Your task to perform on an android device: open app "Gmail" Image 0: 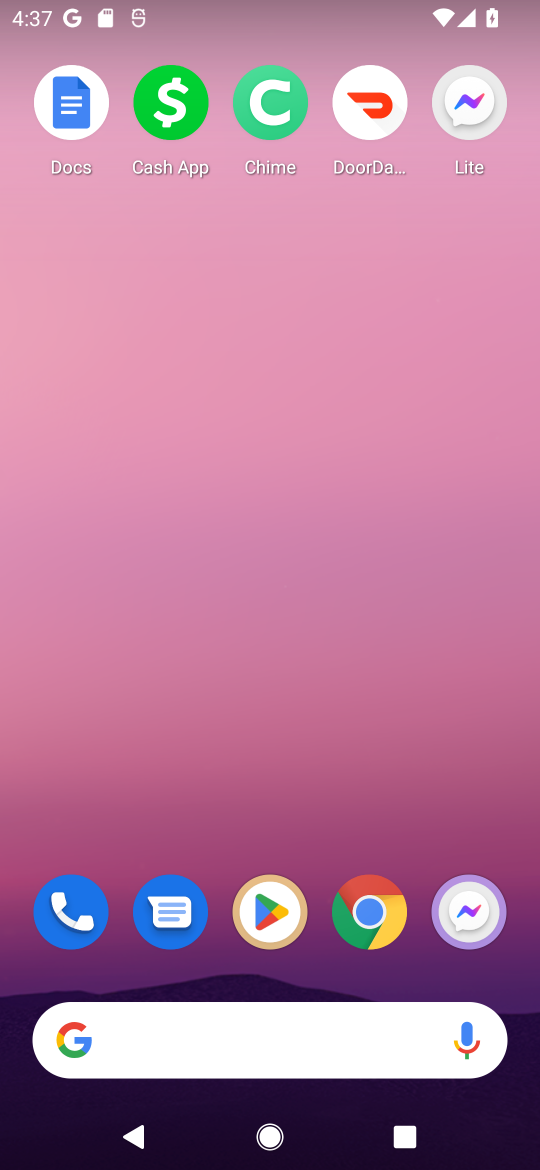
Step 0: click (259, 902)
Your task to perform on an android device: open app "Gmail" Image 1: 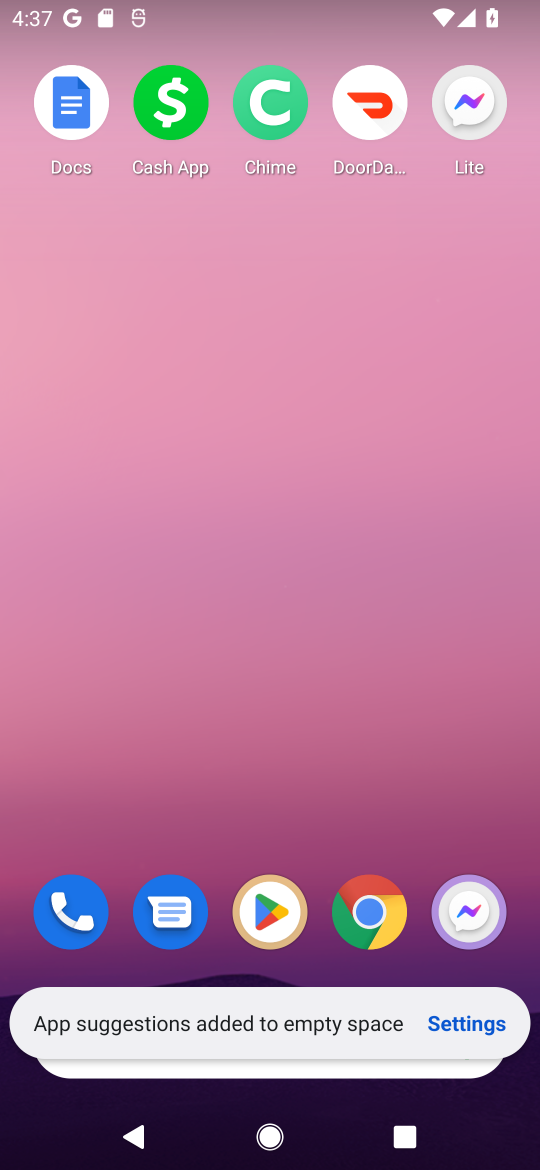
Step 1: click (270, 905)
Your task to perform on an android device: open app "Gmail" Image 2: 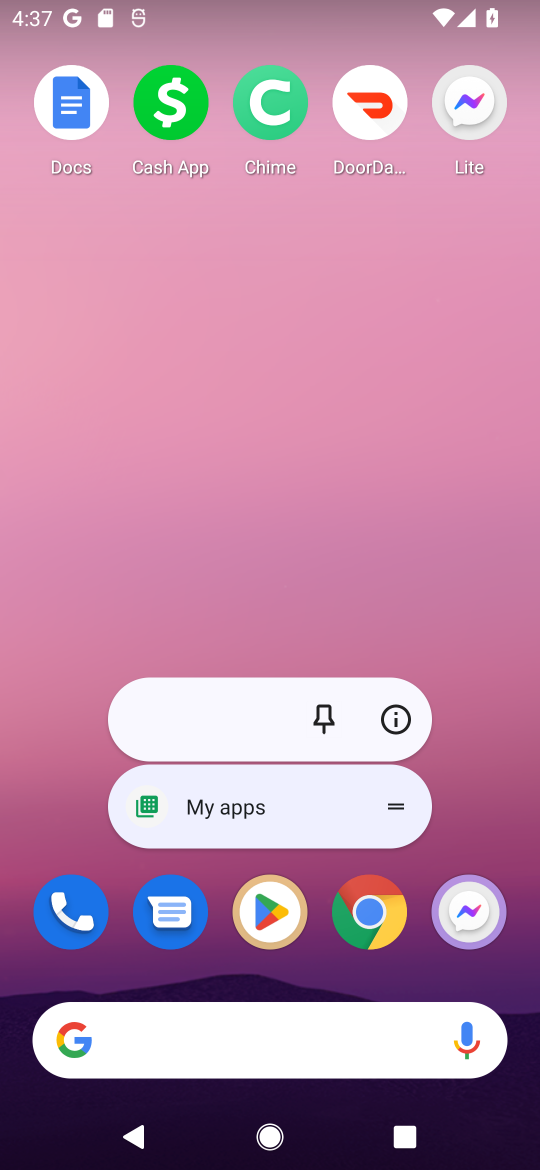
Step 2: click (270, 905)
Your task to perform on an android device: open app "Gmail" Image 3: 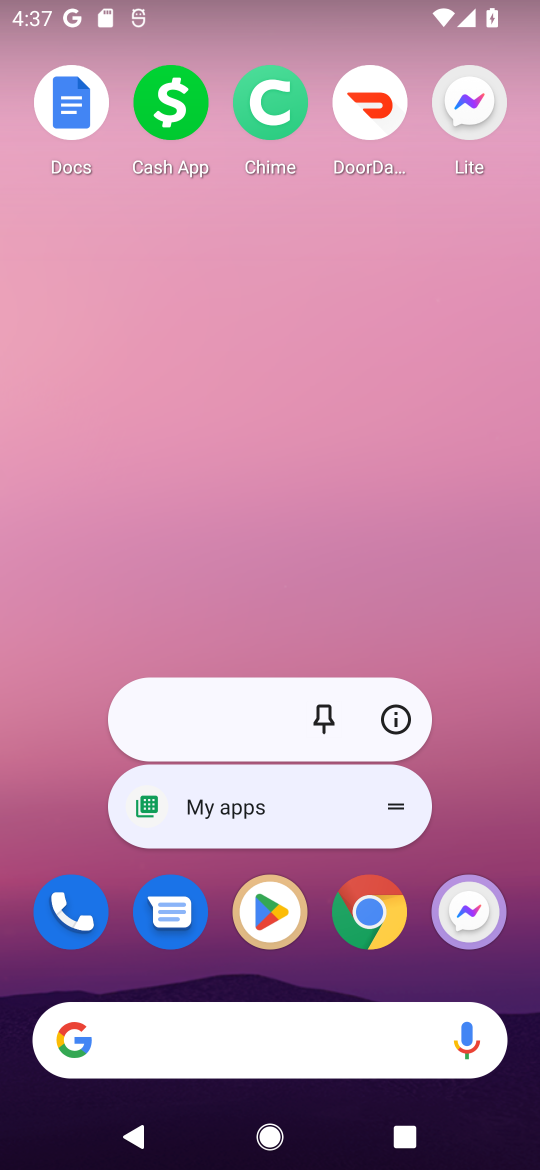
Step 3: click (270, 905)
Your task to perform on an android device: open app "Gmail" Image 4: 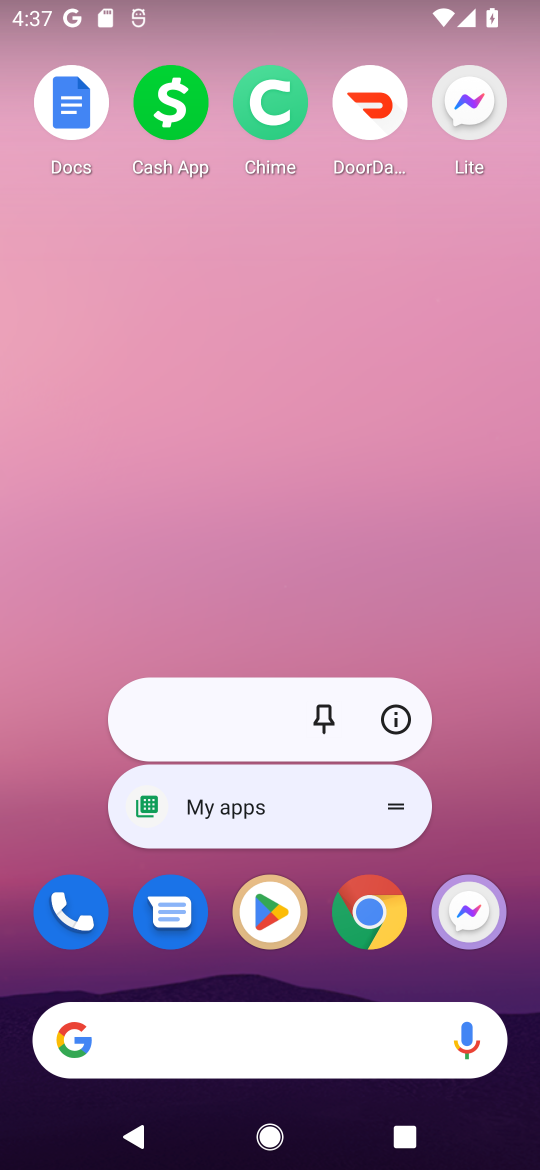
Step 4: click (449, 794)
Your task to perform on an android device: open app "Gmail" Image 5: 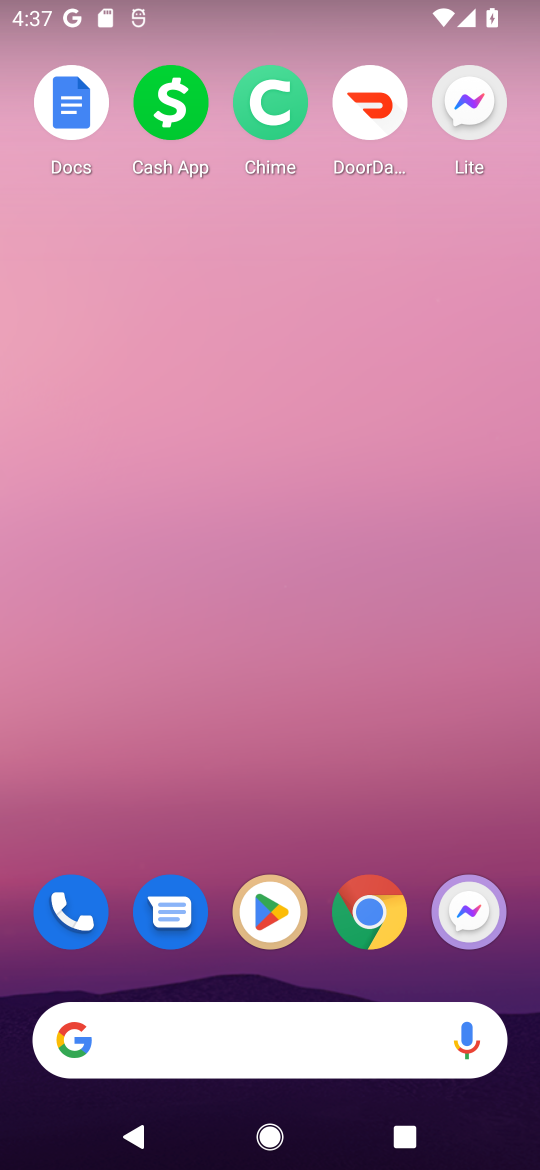
Step 5: drag from (456, 854) to (364, 205)
Your task to perform on an android device: open app "Gmail" Image 6: 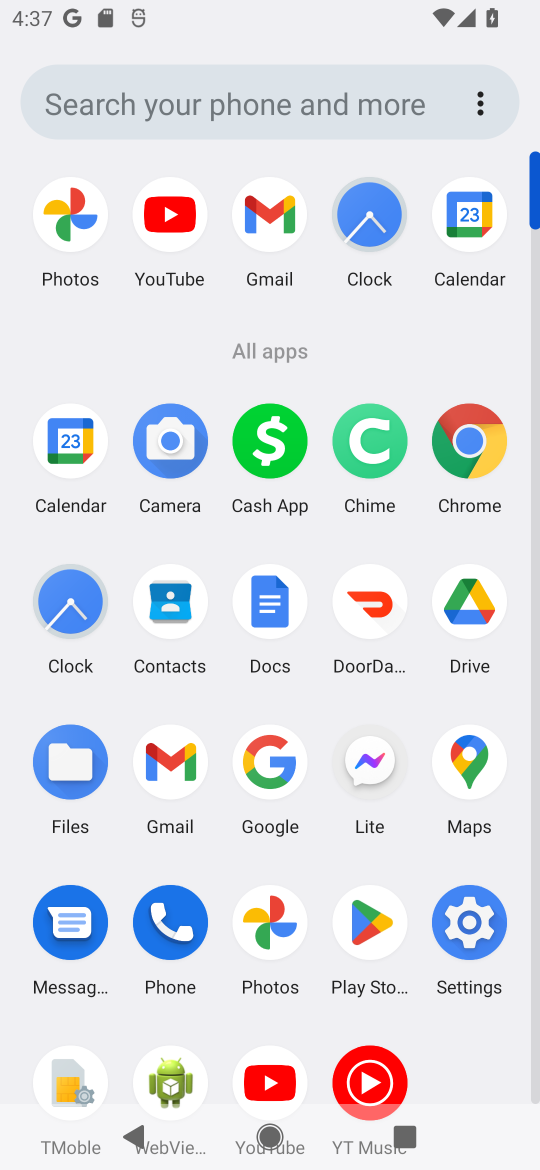
Step 6: click (380, 912)
Your task to perform on an android device: open app "Gmail" Image 7: 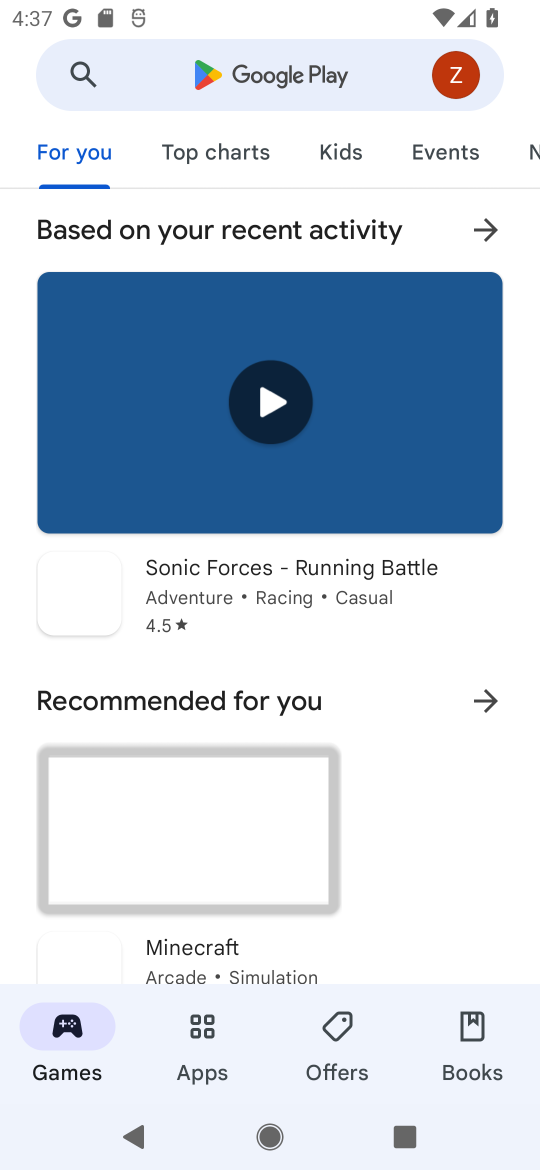
Step 7: click (270, 72)
Your task to perform on an android device: open app "Gmail" Image 8: 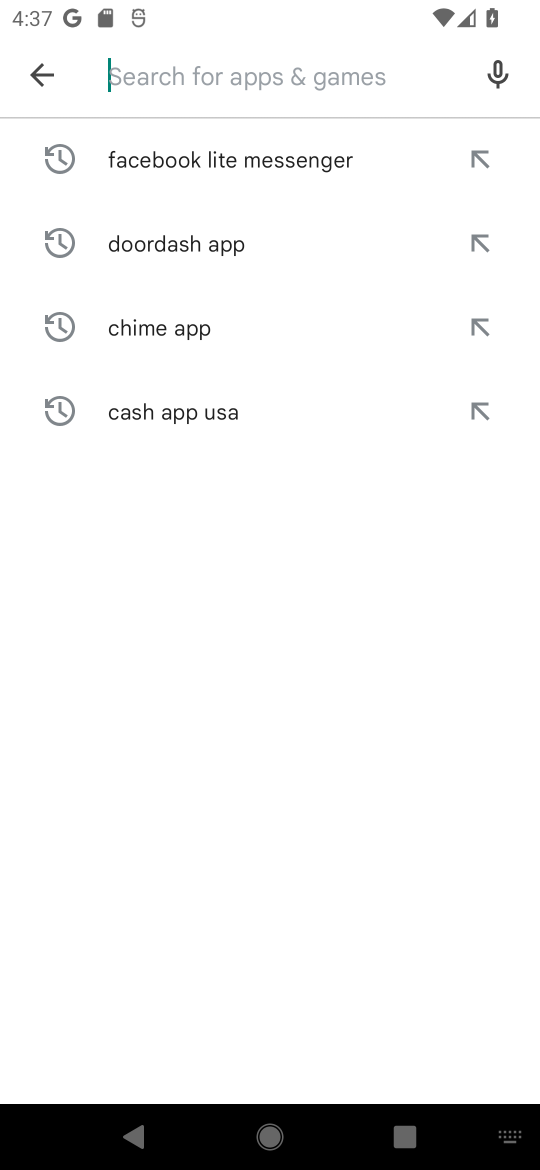
Step 8: type "gmail "
Your task to perform on an android device: open app "Gmail" Image 9: 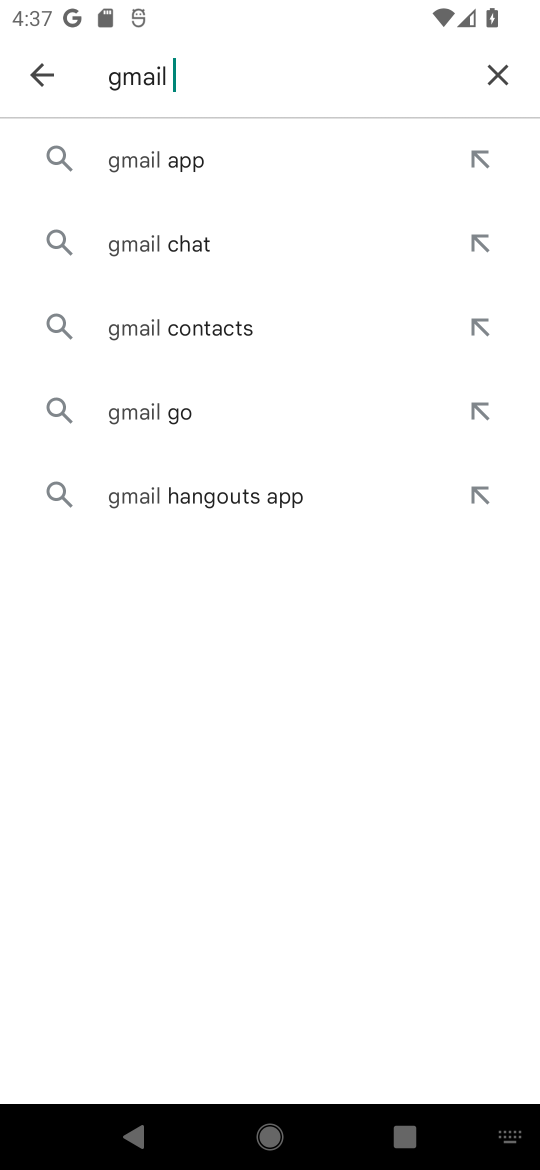
Step 9: click (180, 180)
Your task to perform on an android device: open app "Gmail" Image 10: 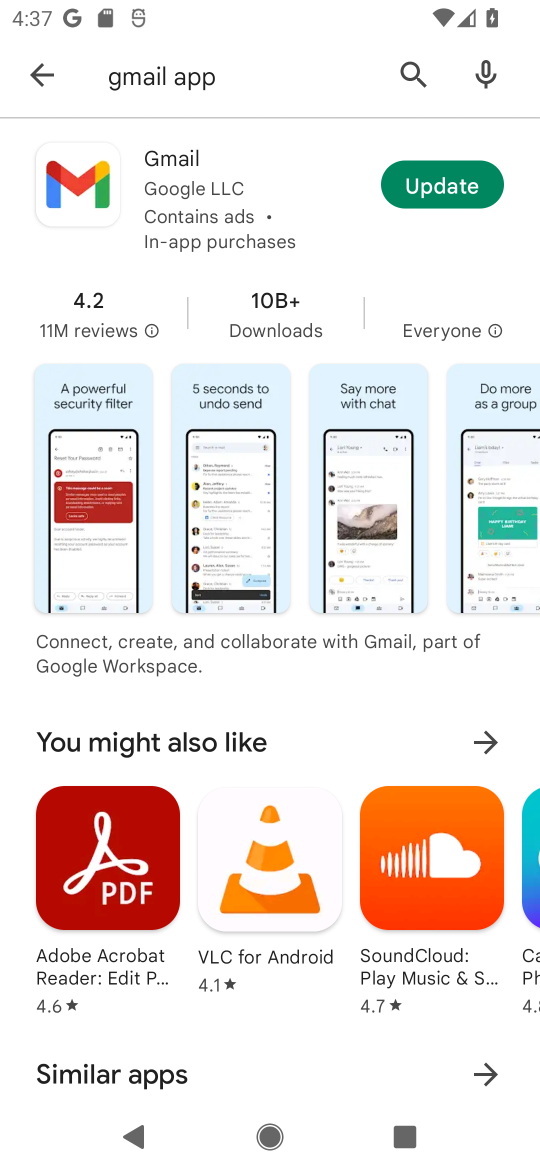
Step 10: click (454, 193)
Your task to perform on an android device: open app "Gmail" Image 11: 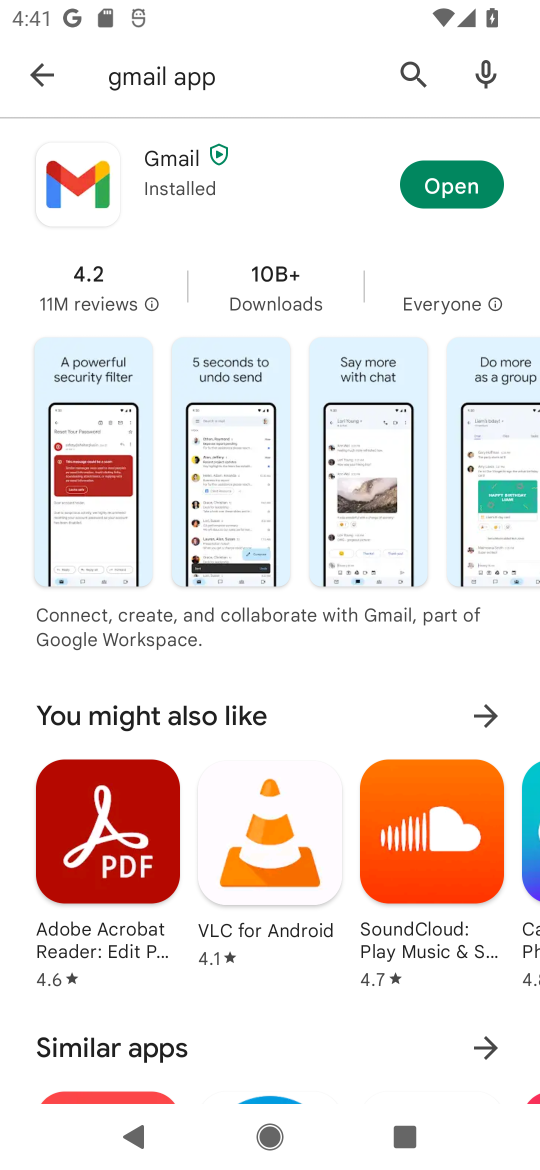
Step 11: click (463, 183)
Your task to perform on an android device: open app "Gmail" Image 12: 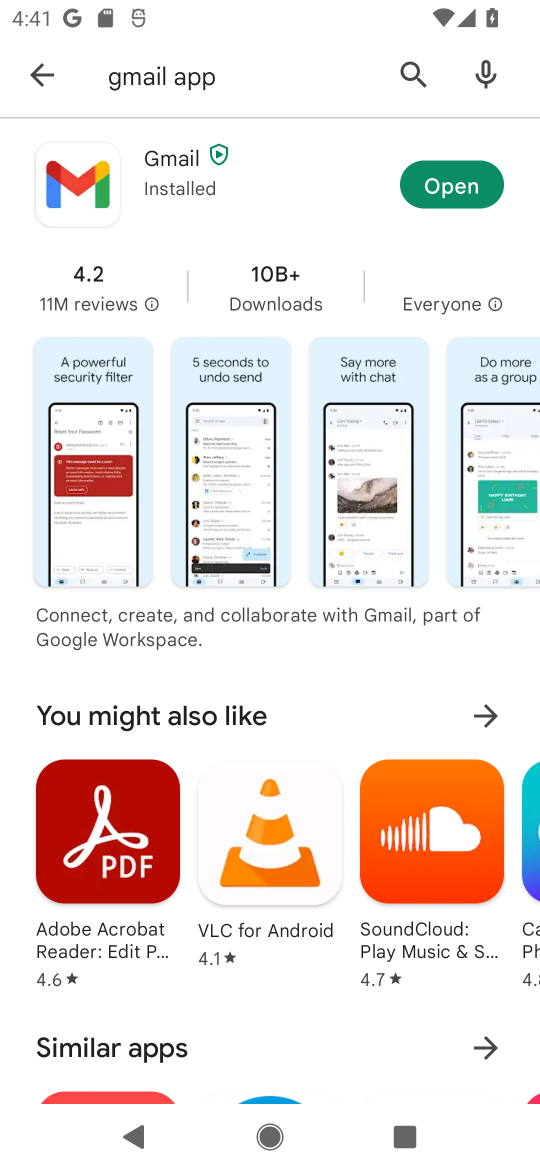
Step 12: task complete